Your task to perform on an android device: toggle priority inbox in the gmail app Image 0: 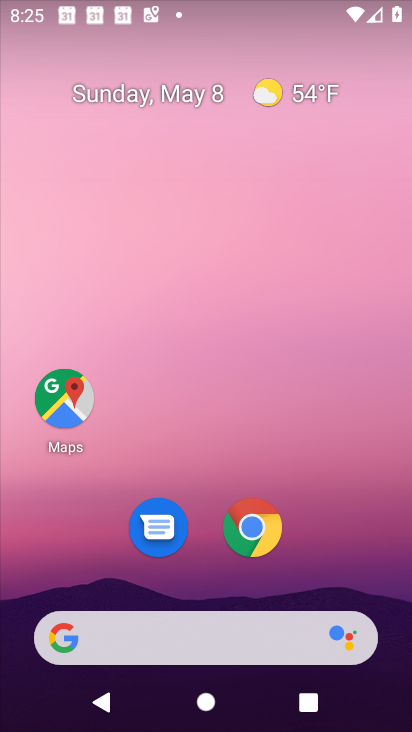
Step 0: drag from (346, 601) to (277, 32)
Your task to perform on an android device: toggle priority inbox in the gmail app Image 1: 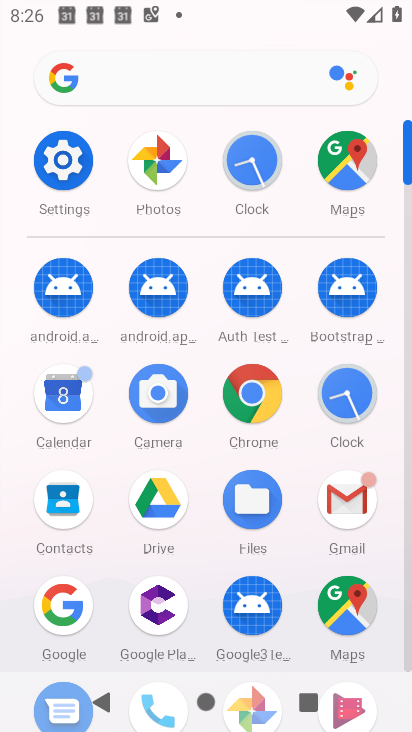
Step 1: click (348, 494)
Your task to perform on an android device: toggle priority inbox in the gmail app Image 2: 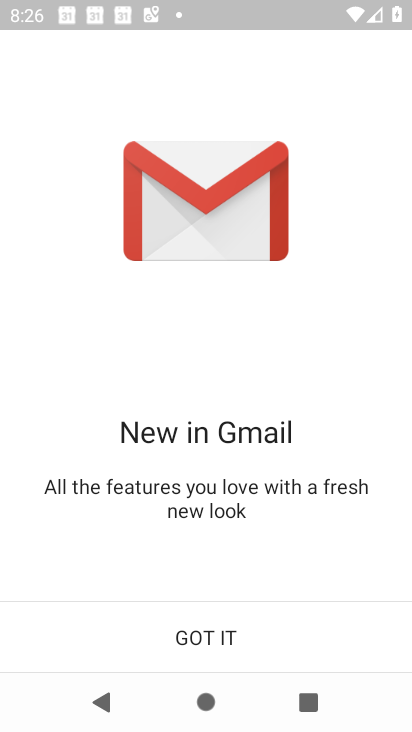
Step 2: click (334, 630)
Your task to perform on an android device: toggle priority inbox in the gmail app Image 3: 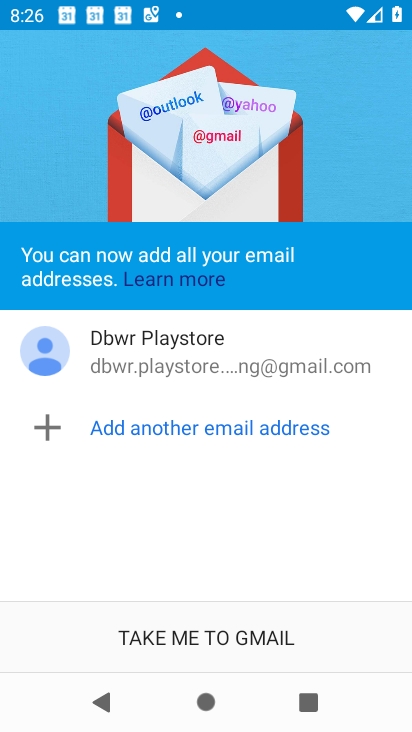
Step 3: click (334, 630)
Your task to perform on an android device: toggle priority inbox in the gmail app Image 4: 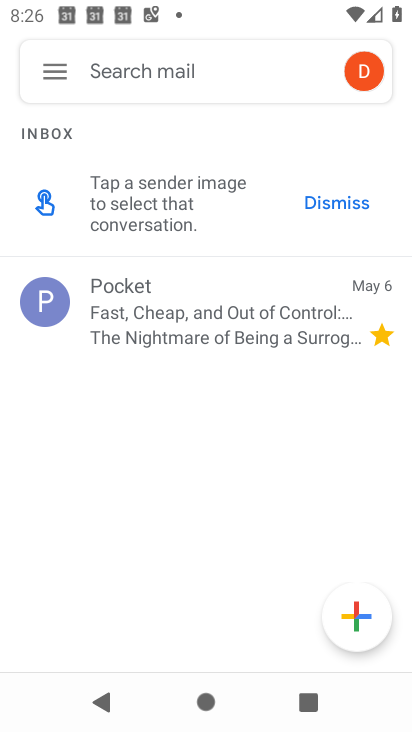
Step 4: click (51, 74)
Your task to perform on an android device: toggle priority inbox in the gmail app Image 5: 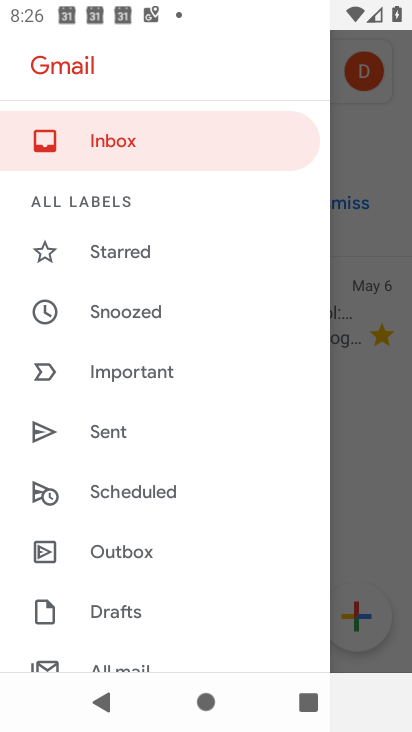
Step 5: drag from (171, 564) to (197, 329)
Your task to perform on an android device: toggle priority inbox in the gmail app Image 6: 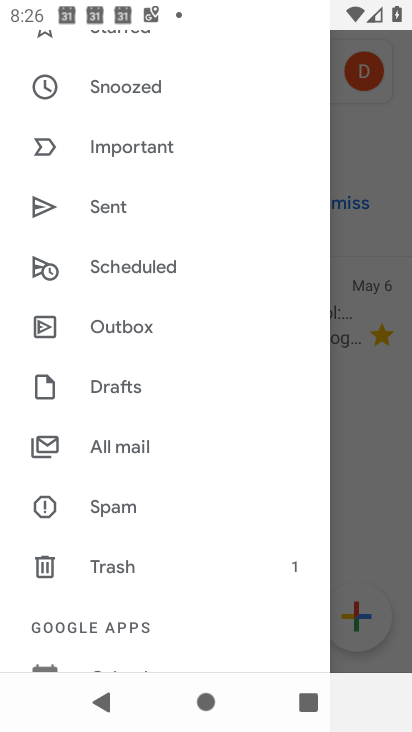
Step 6: drag from (166, 603) to (213, 346)
Your task to perform on an android device: toggle priority inbox in the gmail app Image 7: 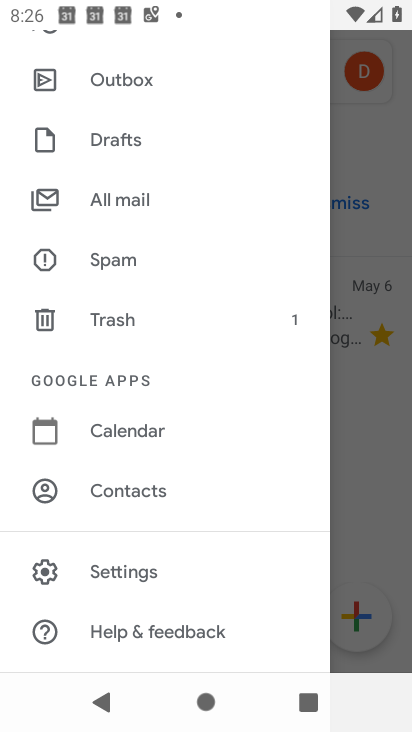
Step 7: click (169, 577)
Your task to perform on an android device: toggle priority inbox in the gmail app Image 8: 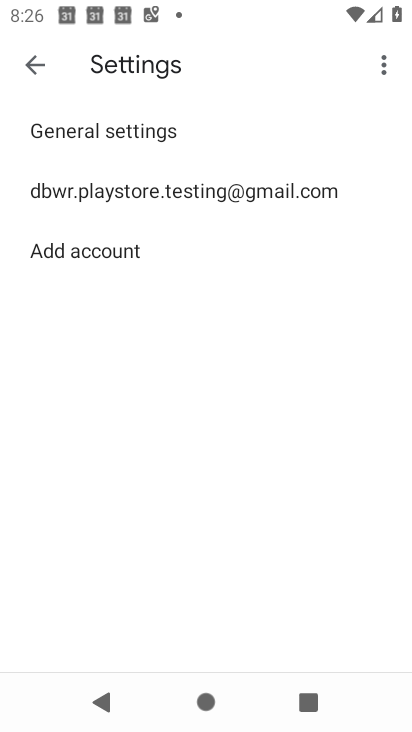
Step 8: click (140, 205)
Your task to perform on an android device: toggle priority inbox in the gmail app Image 9: 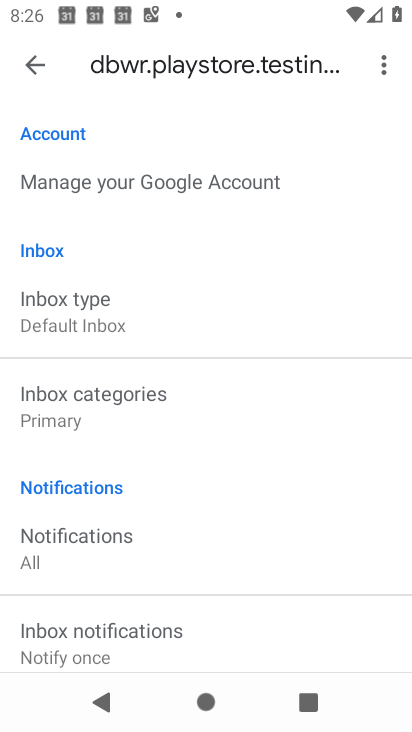
Step 9: click (111, 321)
Your task to perform on an android device: toggle priority inbox in the gmail app Image 10: 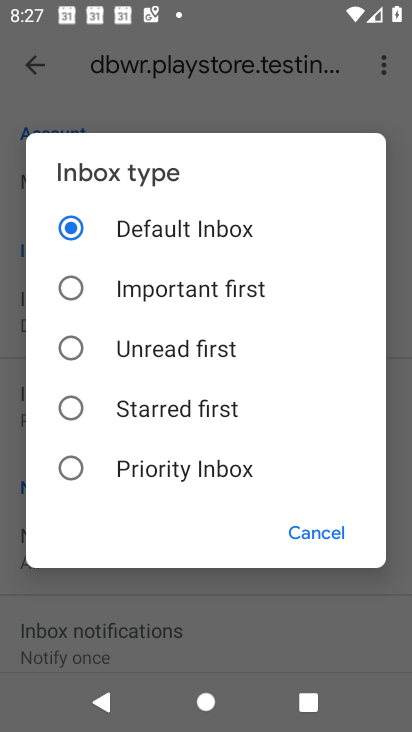
Step 10: click (162, 484)
Your task to perform on an android device: toggle priority inbox in the gmail app Image 11: 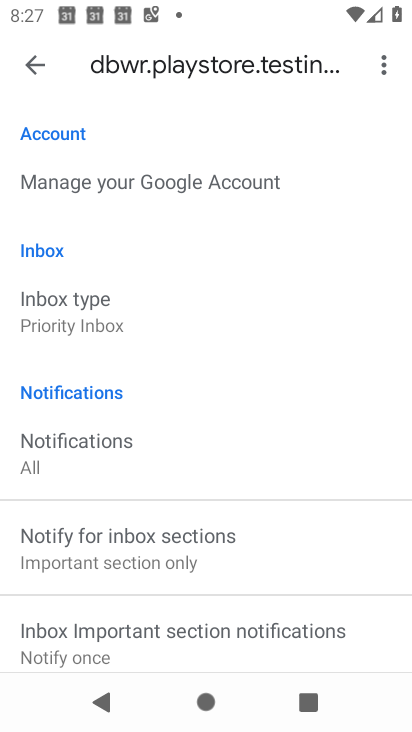
Step 11: task complete